Your task to perform on an android device: show emergency info Image 0: 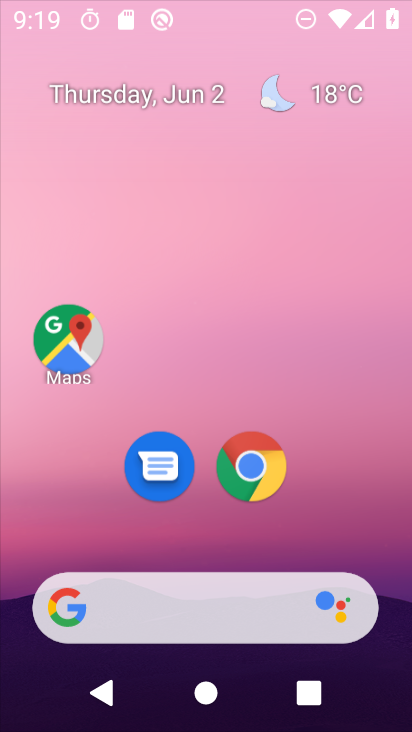
Step 0: press home button
Your task to perform on an android device: show emergency info Image 1: 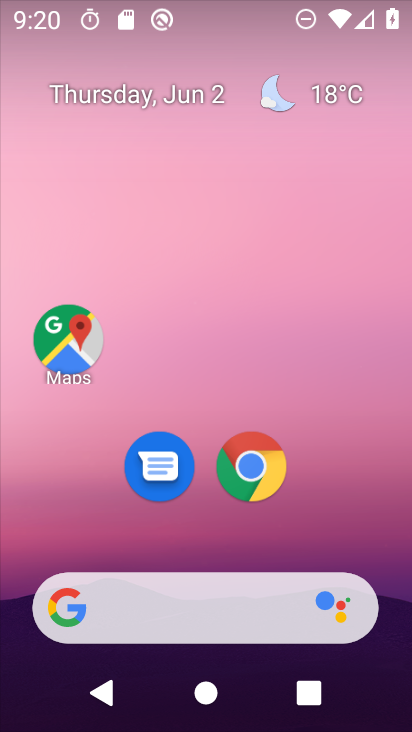
Step 1: drag from (327, 546) to (297, 93)
Your task to perform on an android device: show emergency info Image 2: 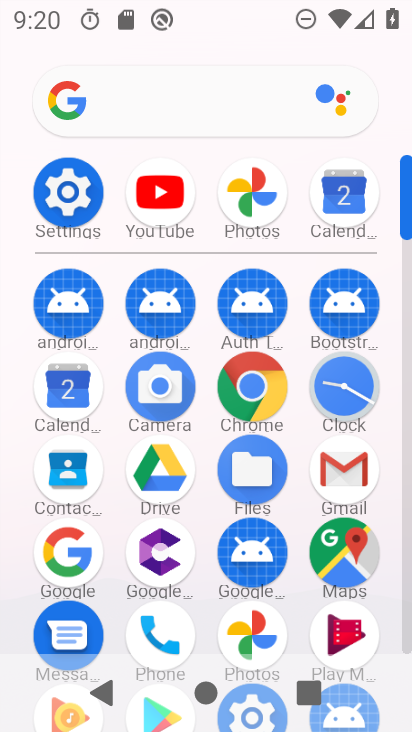
Step 2: click (73, 191)
Your task to perform on an android device: show emergency info Image 3: 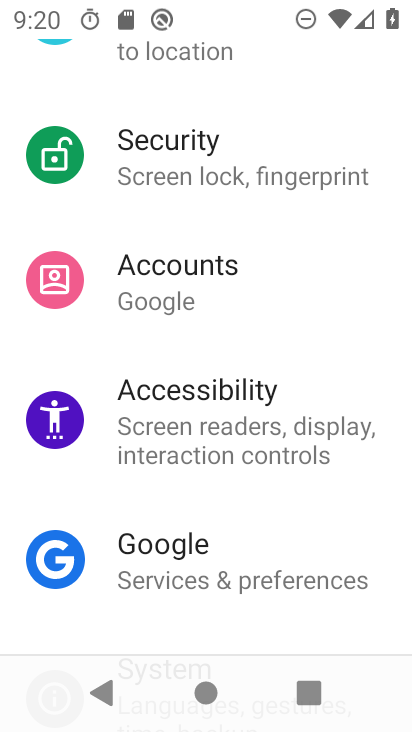
Step 3: drag from (353, 582) to (277, 102)
Your task to perform on an android device: show emergency info Image 4: 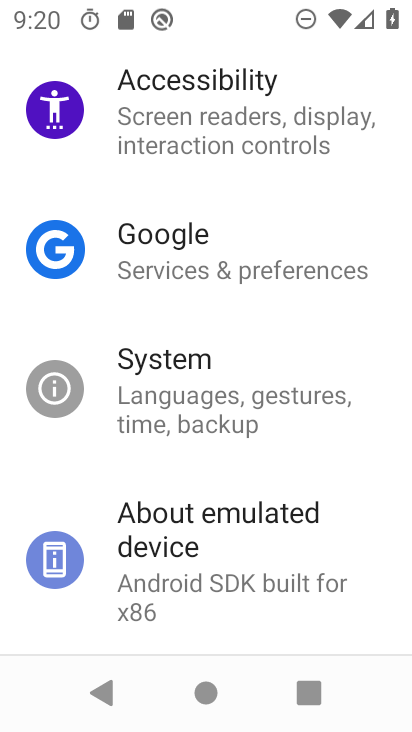
Step 4: click (192, 538)
Your task to perform on an android device: show emergency info Image 5: 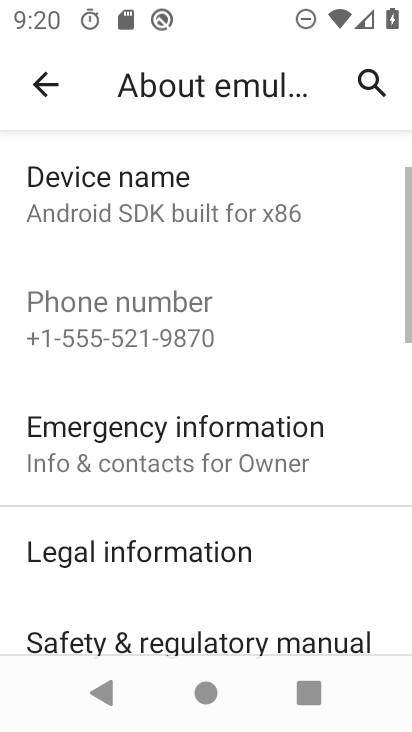
Step 5: click (180, 420)
Your task to perform on an android device: show emergency info Image 6: 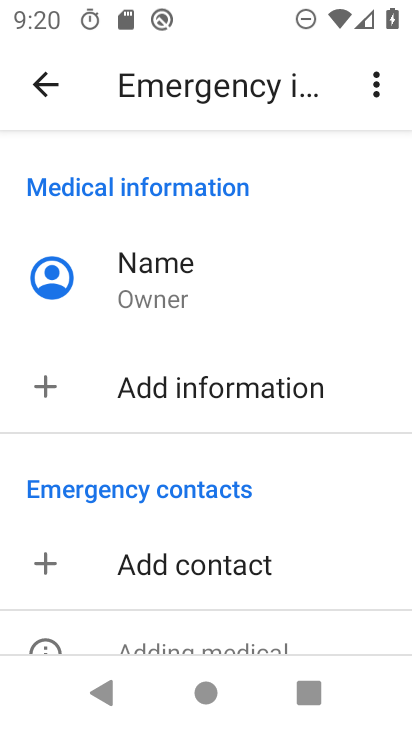
Step 6: task complete